Your task to perform on an android device: turn on showing notifications on the lock screen Image 0: 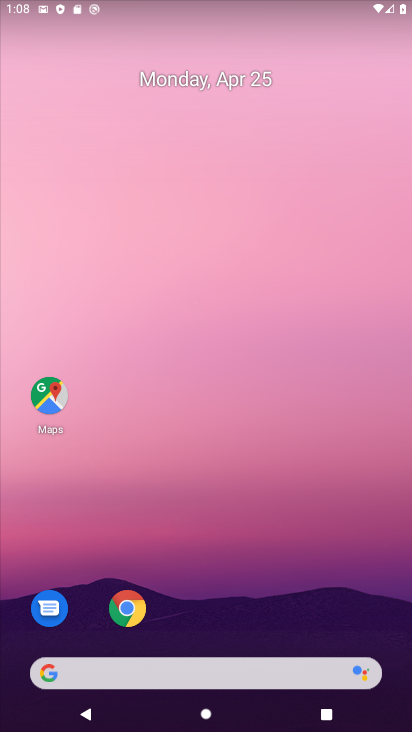
Step 0: drag from (283, 636) to (290, 310)
Your task to perform on an android device: turn on showing notifications on the lock screen Image 1: 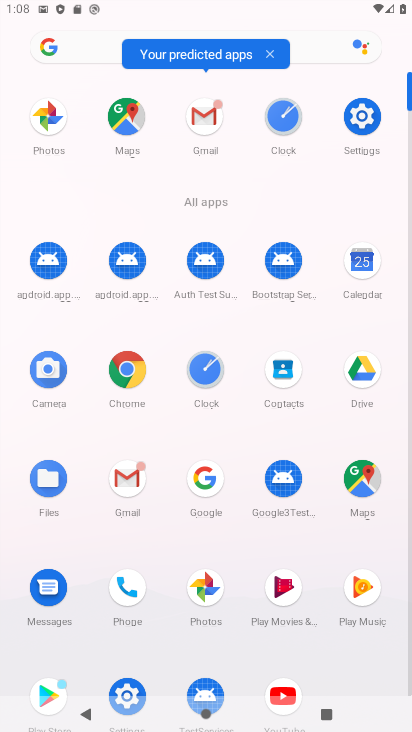
Step 1: click (366, 133)
Your task to perform on an android device: turn on showing notifications on the lock screen Image 2: 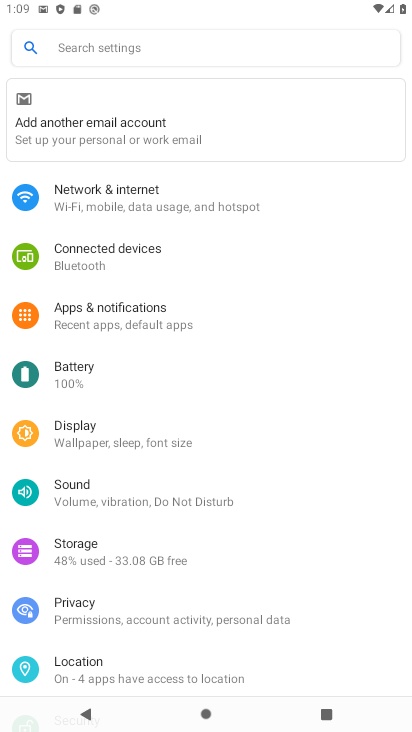
Step 2: click (214, 324)
Your task to perform on an android device: turn on showing notifications on the lock screen Image 3: 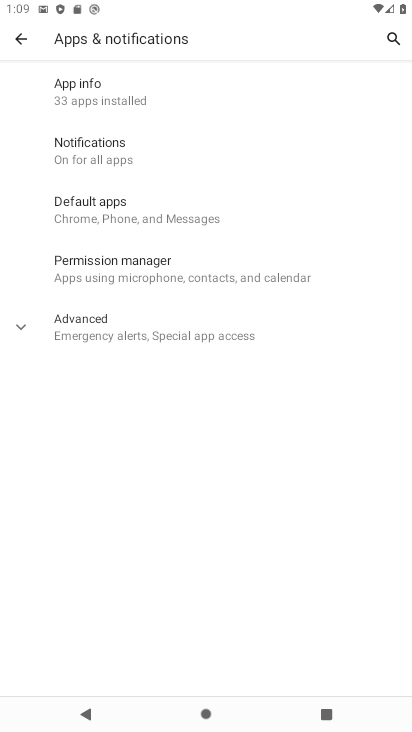
Step 3: click (164, 181)
Your task to perform on an android device: turn on showing notifications on the lock screen Image 4: 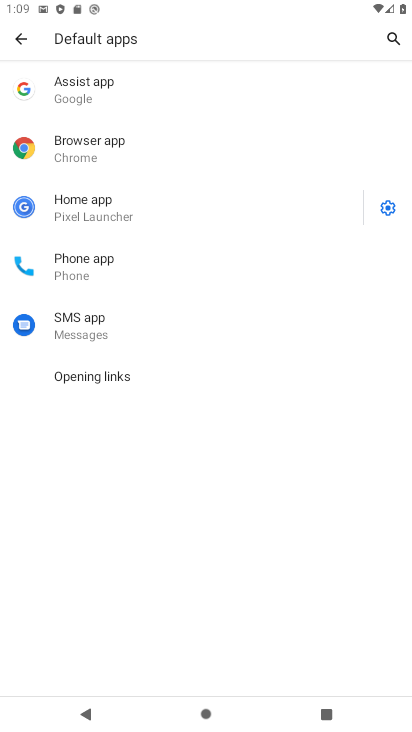
Step 4: click (47, 49)
Your task to perform on an android device: turn on showing notifications on the lock screen Image 5: 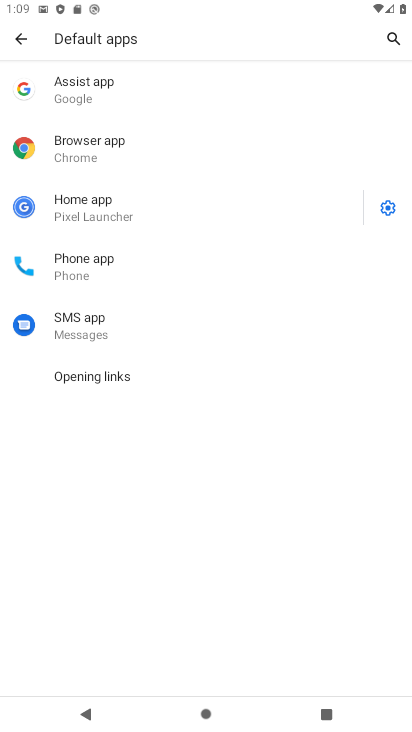
Step 5: click (19, 41)
Your task to perform on an android device: turn on showing notifications on the lock screen Image 6: 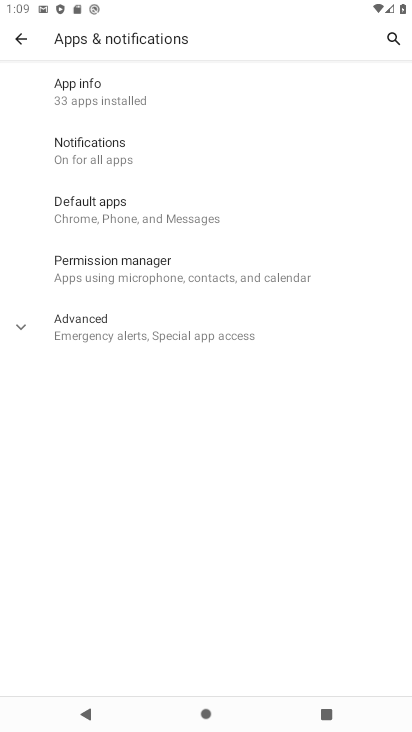
Step 6: click (111, 134)
Your task to perform on an android device: turn on showing notifications on the lock screen Image 7: 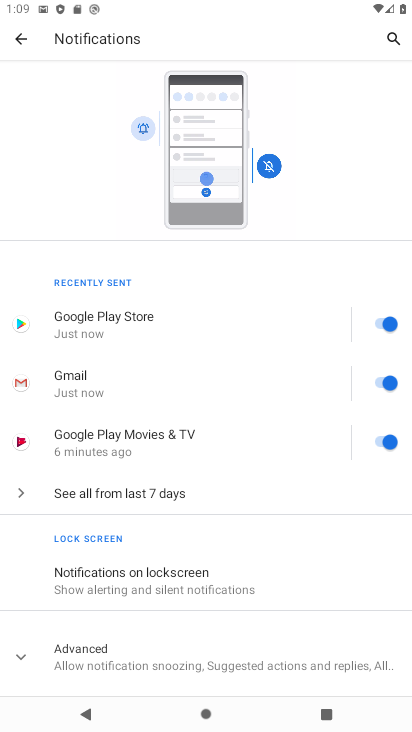
Step 7: click (191, 602)
Your task to perform on an android device: turn on showing notifications on the lock screen Image 8: 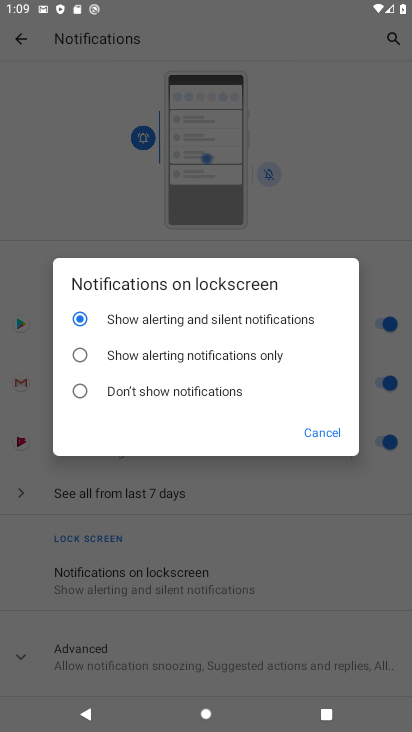
Step 8: task complete